Your task to perform on an android device: find which apps use the phone's location Image 0: 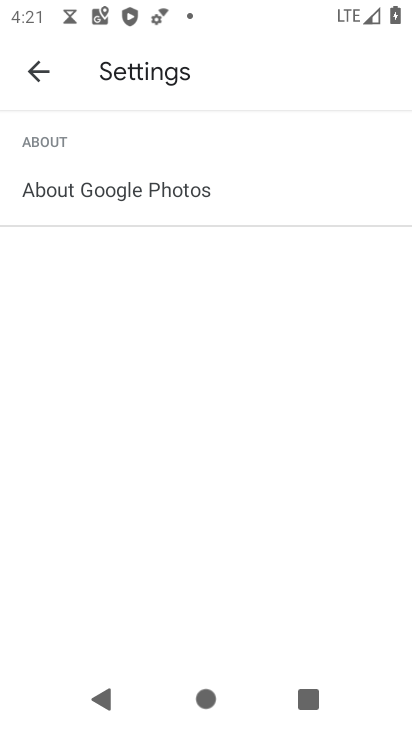
Step 0: press home button
Your task to perform on an android device: find which apps use the phone's location Image 1: 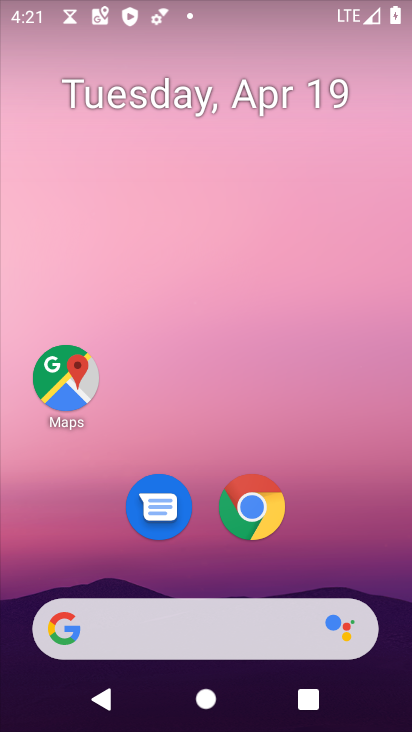
Step 1: drag from (189, 584) to (354, 8)
Your task to perform on an android device: find which apps use the phone's location Image 2: 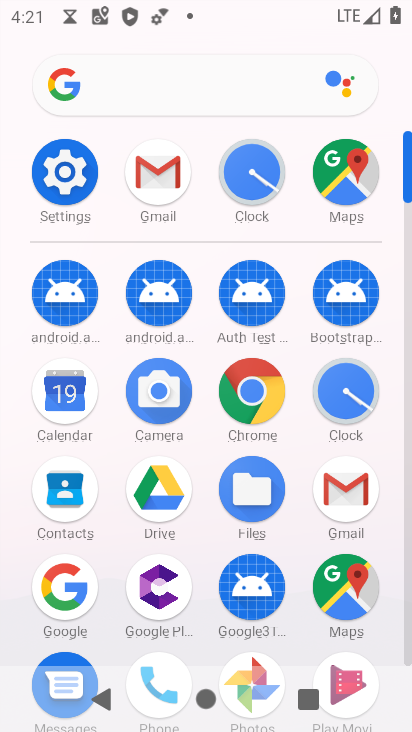
Step 2: click (45, 180)
Your task to perform on an android device: find which apps use the phone's location Image 3: 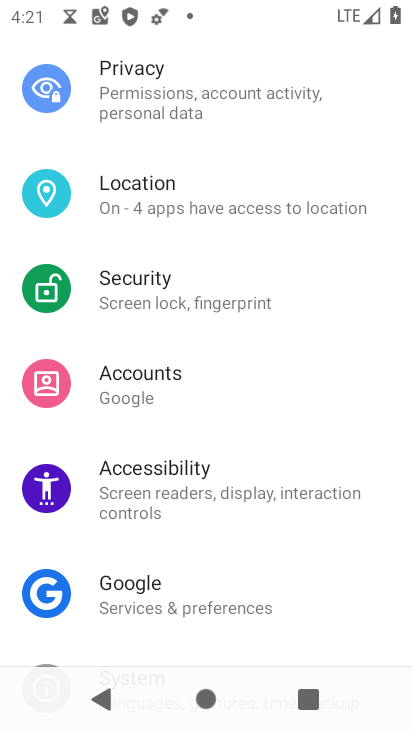
Step 3: drag from (203, 353) to (180, 513)
Your task to perform on an android device: find which apps use the phone's location Image 4: 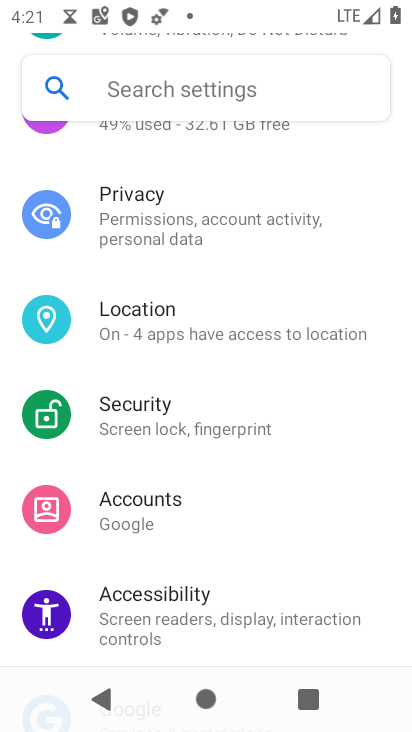
Step 4: click (207, 314)
Your task to perform on an android device: find which apps use the phone's location Image 5: 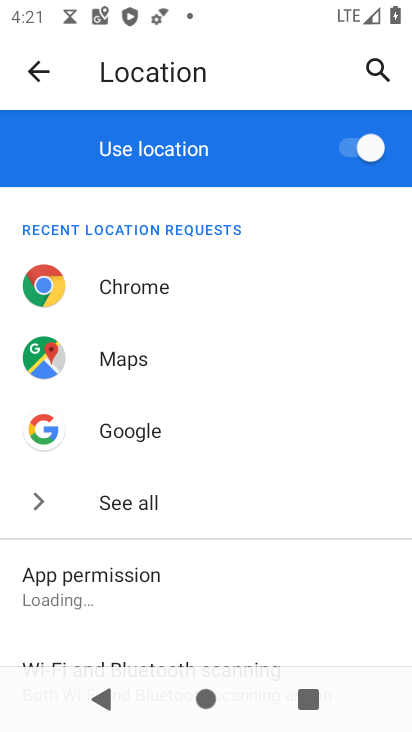
Step 5: click (130, 570)
Your task to perform on an android device: find which apps use the phone's location Image 6: 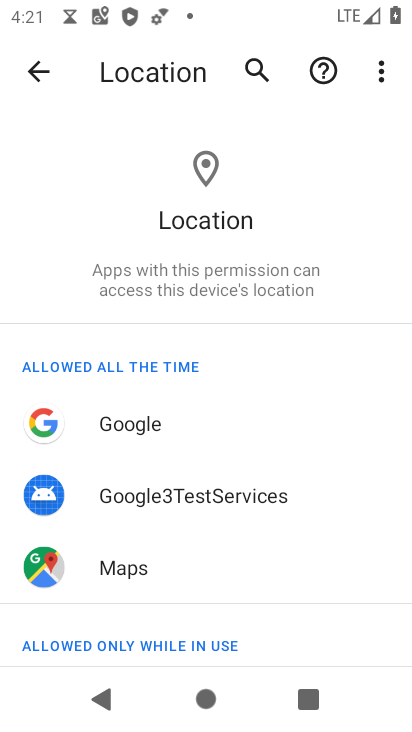
Step 6: task complete